Your task to perform on an android device: turn off javascript in the chrome app Image 0: 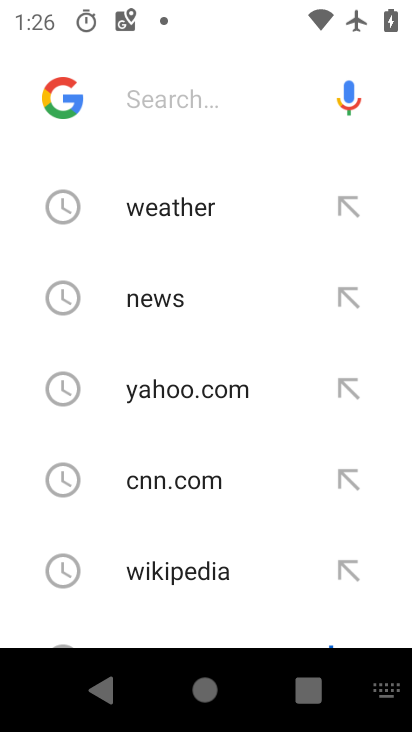
Step 0: press home button
Your task to perform on an android device: turn off javascript in the chrome app Image 1: 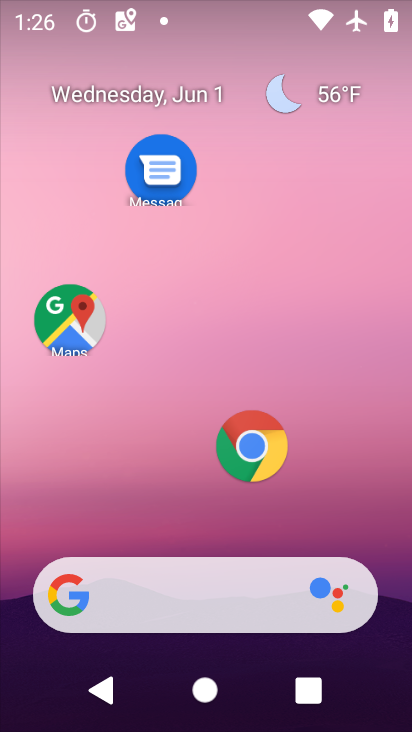
Step 1: drag from (158, 516) to (234, 102)
Your task to perform on an android device: turn off javascript in the chrome app Image 2: 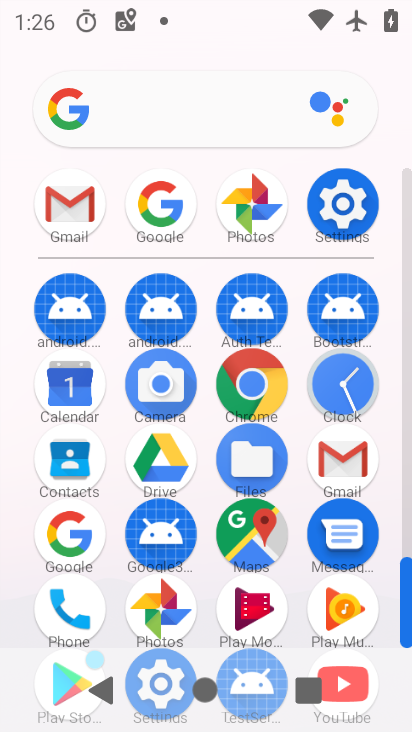
Step 2: drag from (238, 254) to (237, 141)
Your task to perform on an android device: turn off javascript in the chrome app Image 3: 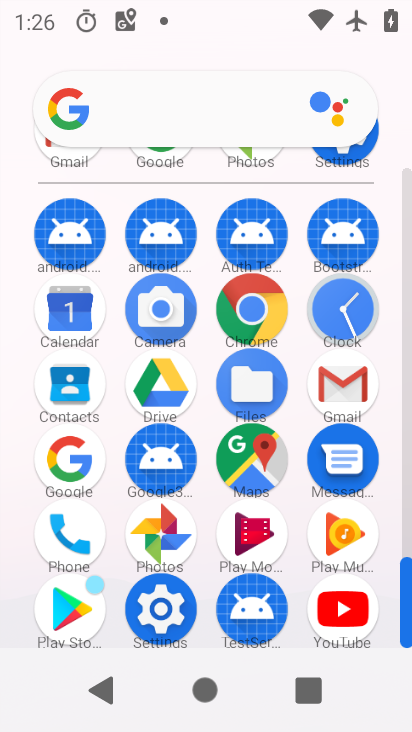
Step 3: click (262, 307)
Your task to perform on an android device: turn off javascript in the chrome app Image 4: 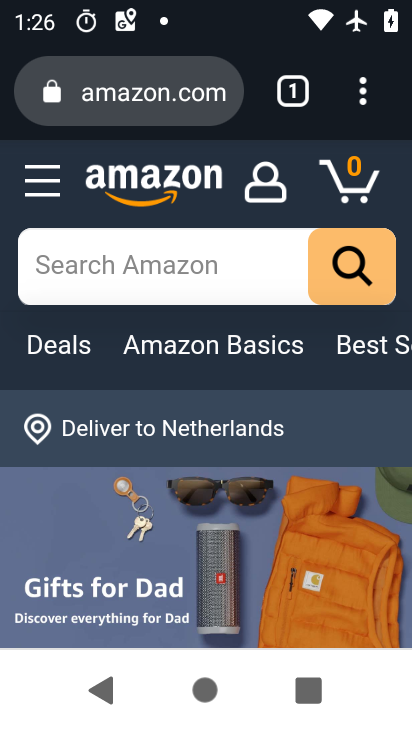
Step 4: click (371, 104)
Your task to perform on an android device: turn off javascript in the chrome app Image 5: 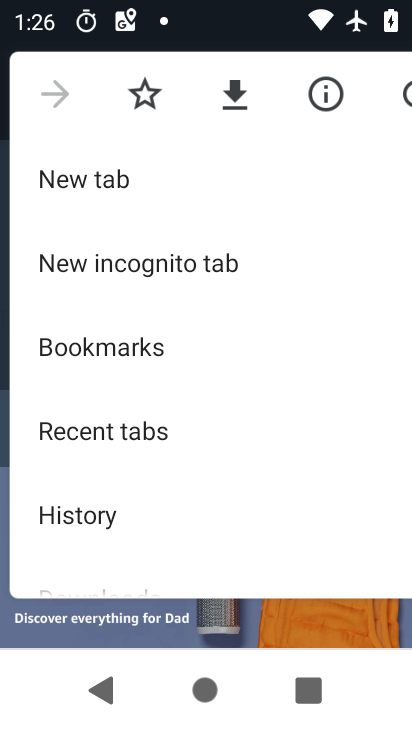
Step 5: drag from (141, 550) to (134, 239)
Your task to perform on an android device: turn off javascript in the chrome app Image 6: 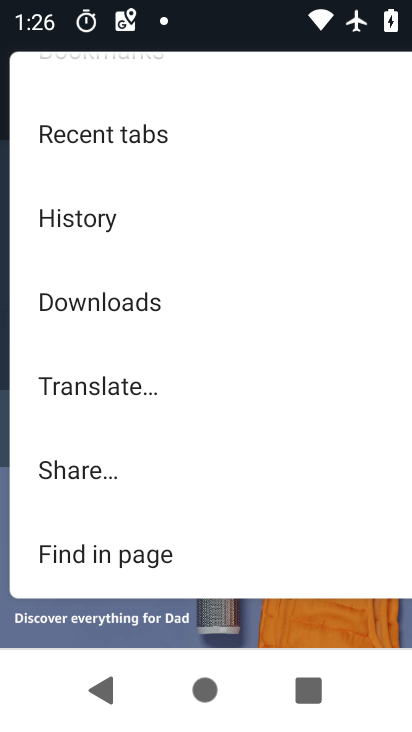
Step 6: drag from (206, 492) to (226, 225)
Your task to perform on an android device: turn off javascript in the chrome app Image 7: 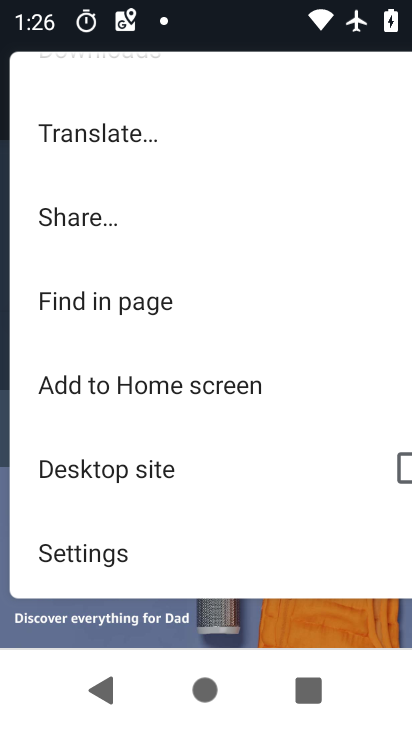
Step 7: drag from (181, 393) to (196, 198)
Your task to perform on an android device: turn off javascript in the chrome app Image 8: 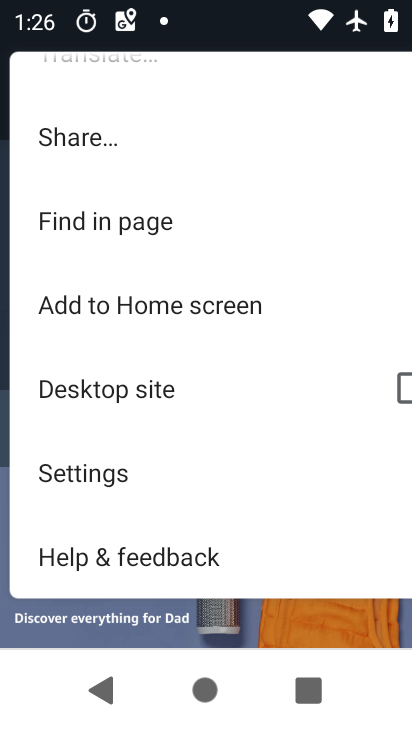
Step 8: click (112, 472)
Your task to perform on an android device: turn off javascript in the chrome app Image 9: 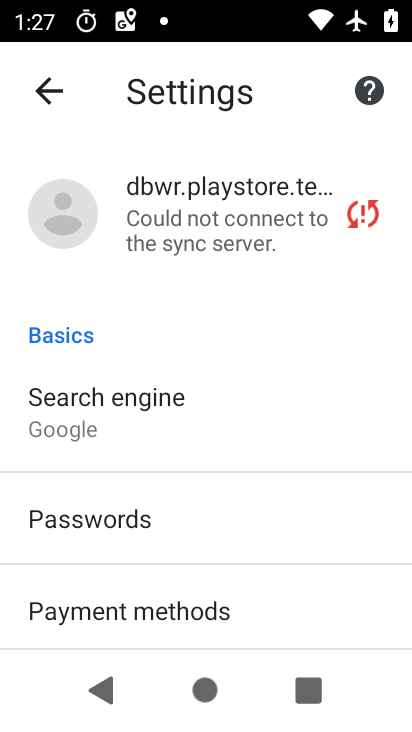
Step 9: drag from (190, 529) to (225, 255)
Your task to perform on an android device: turn off javascript in the chrome app Image 10: 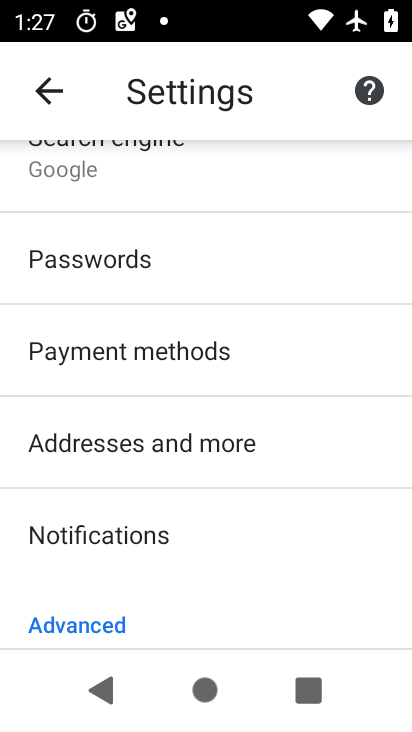
Step 10: drag from (163, 536) to (197, 258)
Your task to perform on an android device: turn off javascript in the chrome app Image 11: 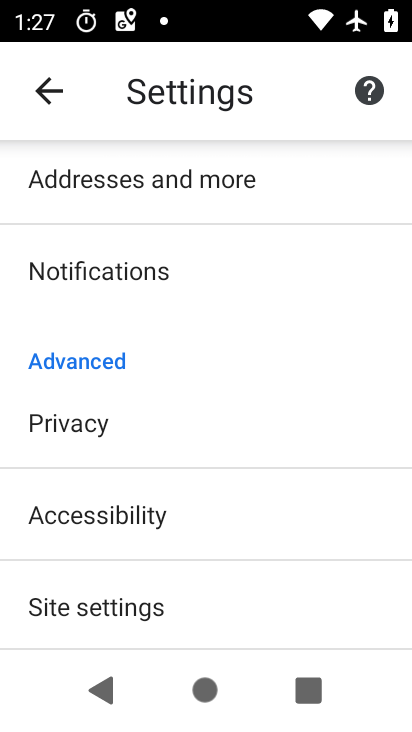
Step 11: click (136, 613)
Your task to perform on an android device: turn off javascript in the chrome app Image 12: 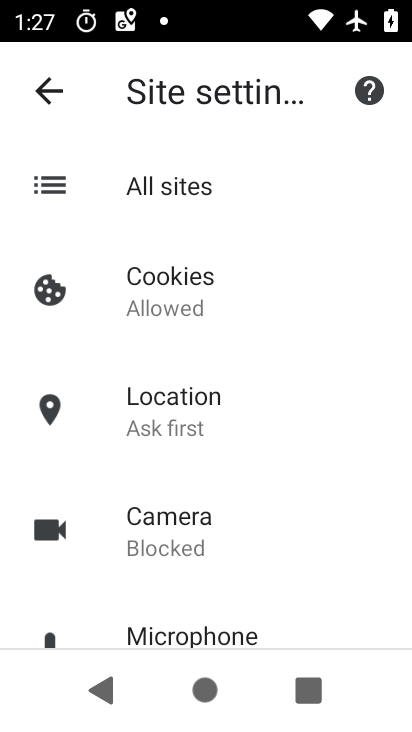
Step 12: drag from (248, 540) to (254, 258)
Your task to perform on an android device: turn off javascript in the chrome app Image 13: 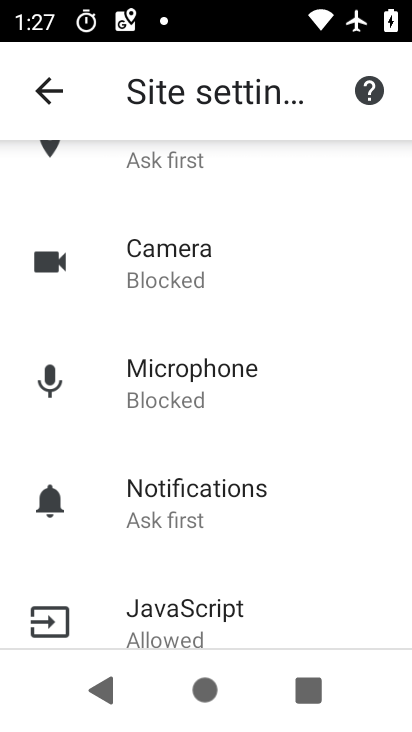
Step 13: click (225, 624)
Your task to perform on an android device: turn off javascript in the chrome app Image 14: 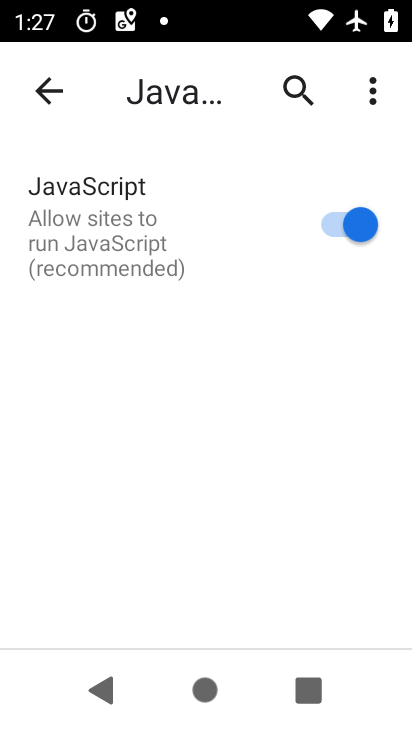
Step 14: click (343, 219)
Your task to perform on an android device: turn off javascript in the chrome app Image 15: 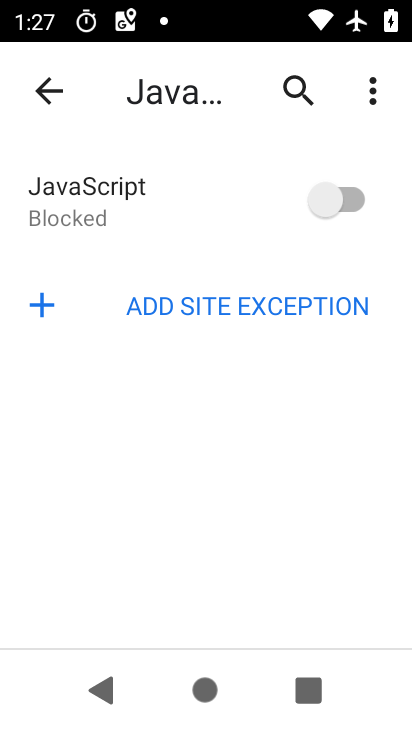
Step 15: task complete